Your task to perform on an android device: search for starred emails in the gmail app Image 0: 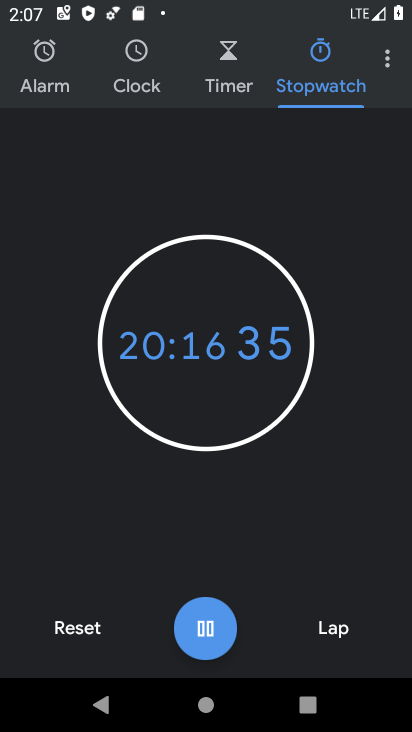
Step 0: press home button
Your task to perform on an android device: search for starred emails in the gmail app Image 1: 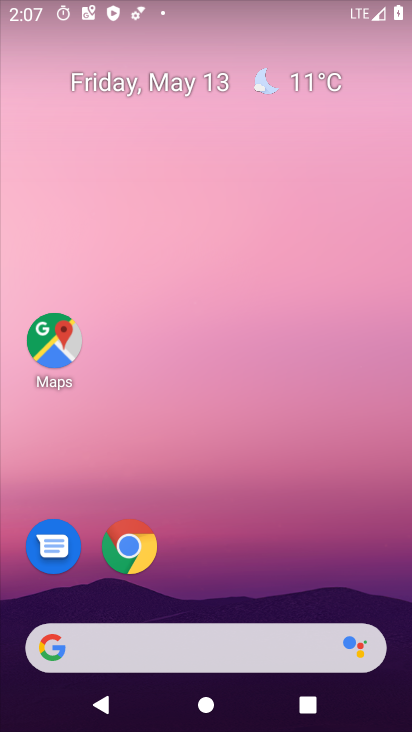
Step 1: drag from (186, 601) to (278, 192)
Your task to perform on an android device: search for starred emails in the gmail app Image 2: 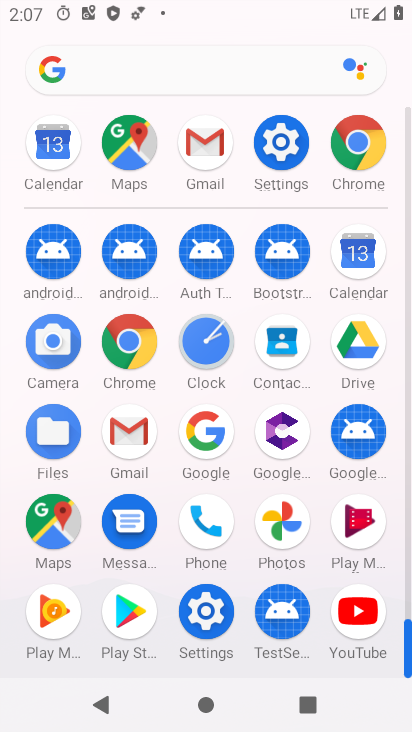
Step 2: click (209, 164)
Your task to perform on an android device: search for starred emails in the gmail app Image 3: 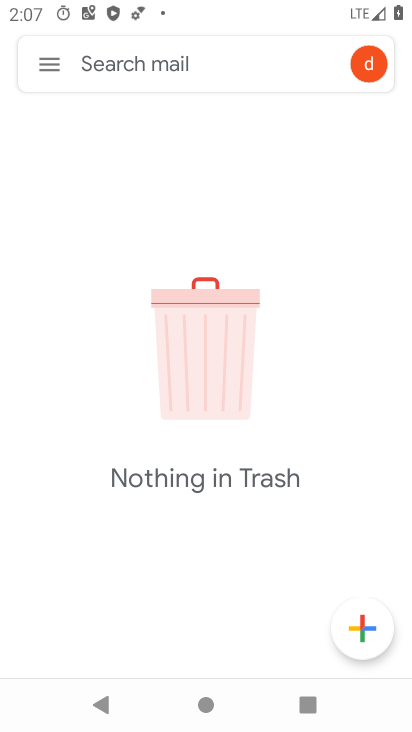
Step 3: click (53, 57)
Your task to perform on an android device: search for starred emails in the gmail app Image 4: 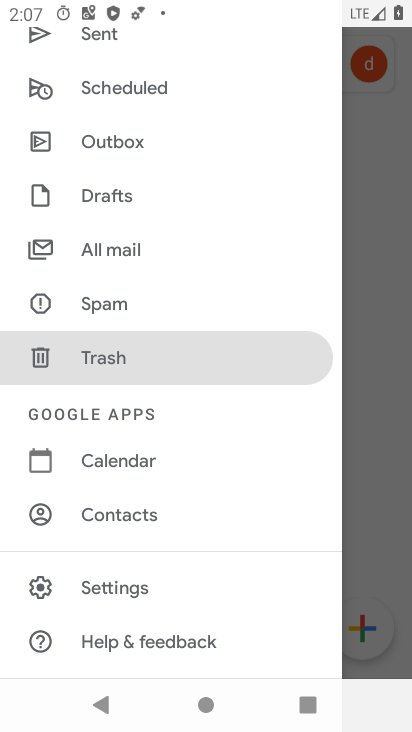
Step 4: click (140, 255)
Your task to perform on an android device: search for starred emails in the gmail app Image 5: 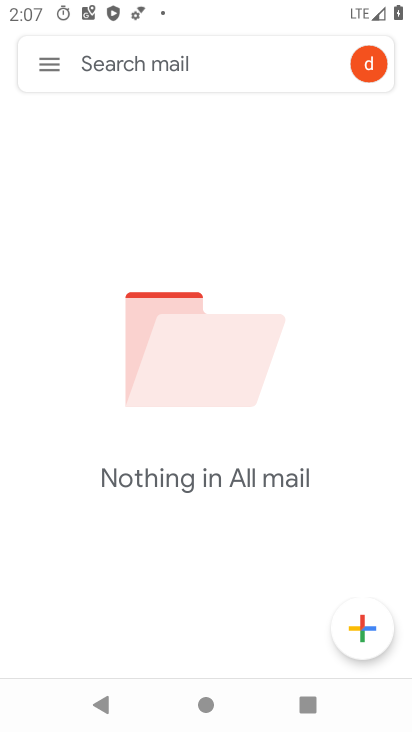
Step 5: task complete